Your task to perform on an android device: turn pop-ups off in chrome Image 0: 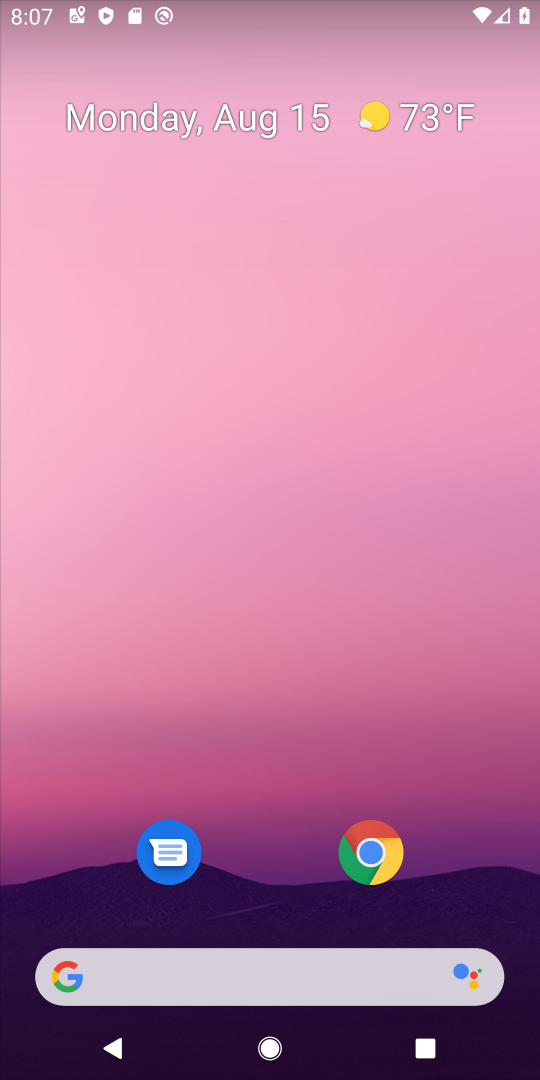
Step 0: click (371, 852)
Your task to perform on an android device: turn pop-ups off in chrome Image 1: 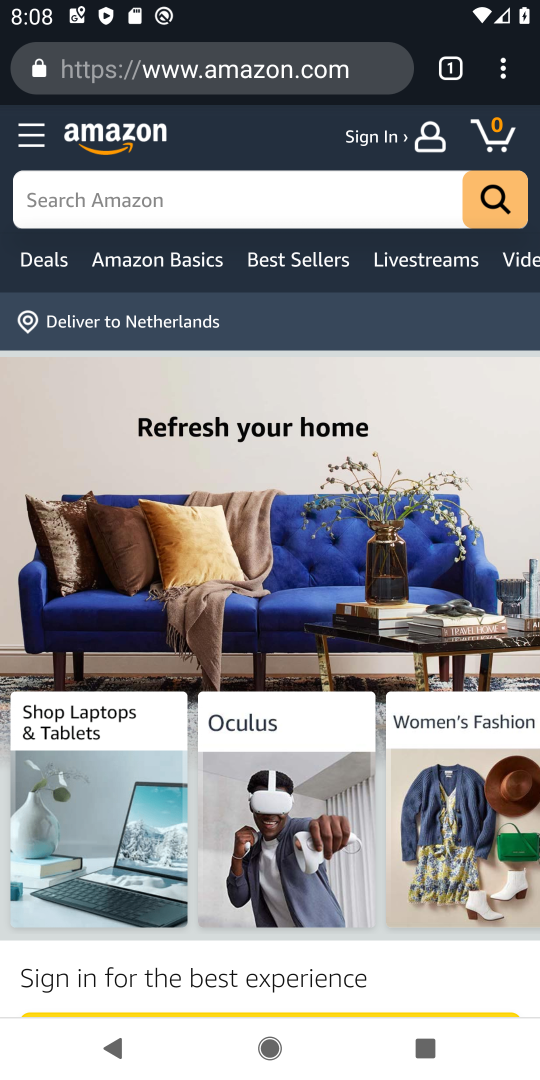
Step 1: click (515, 76)
Your task to perform on an android device: turn pop-ups off in chrome Image 2: 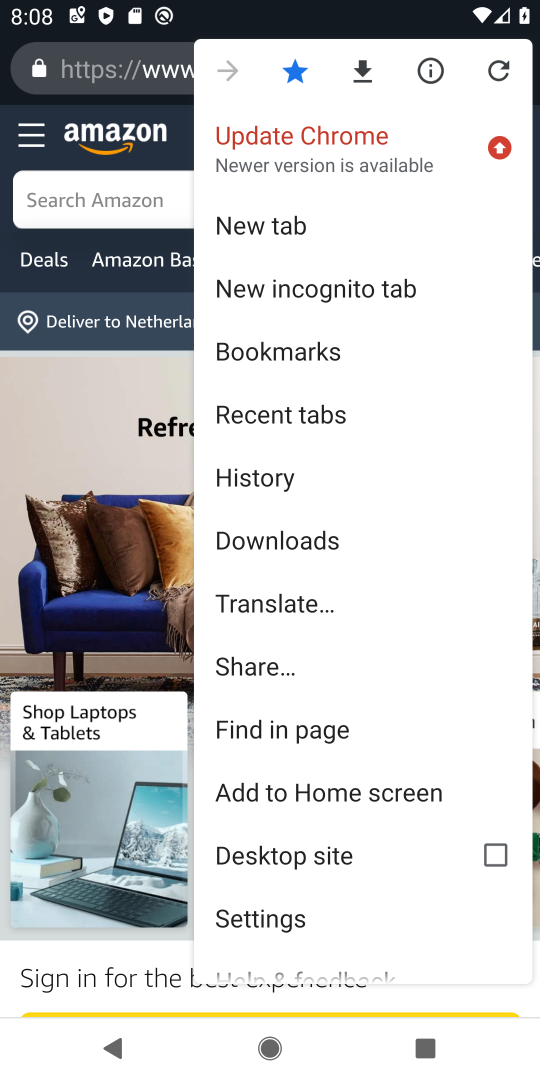
Step 2: click (269, 916)
Your task to perform on an android device: turn pop-ups off in chrome Image 3: 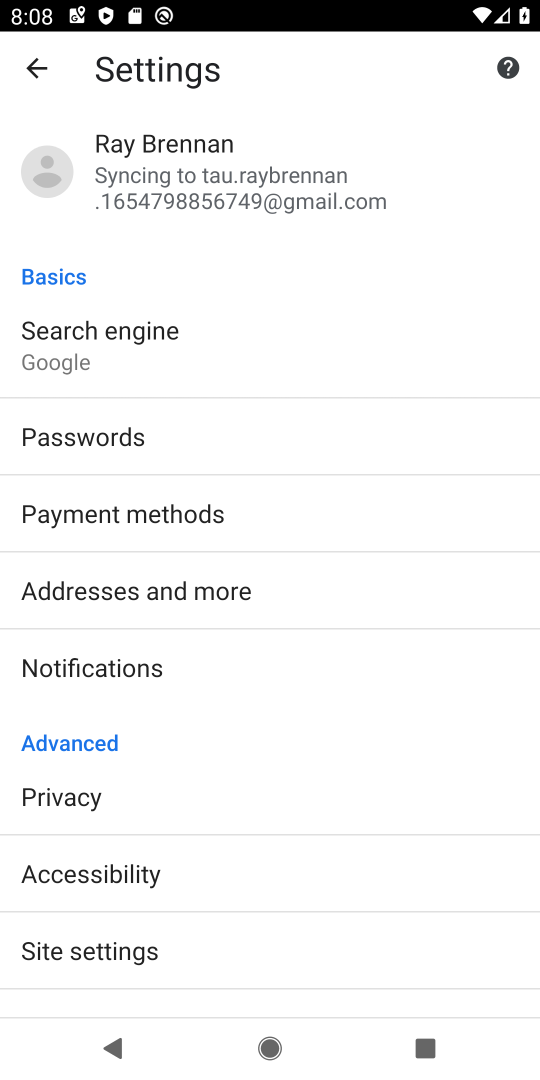
Step 3: drag from (155, 701) to (283, 509)
Your task to perform on an android device: turn pop-ups off in chrome Image 4: 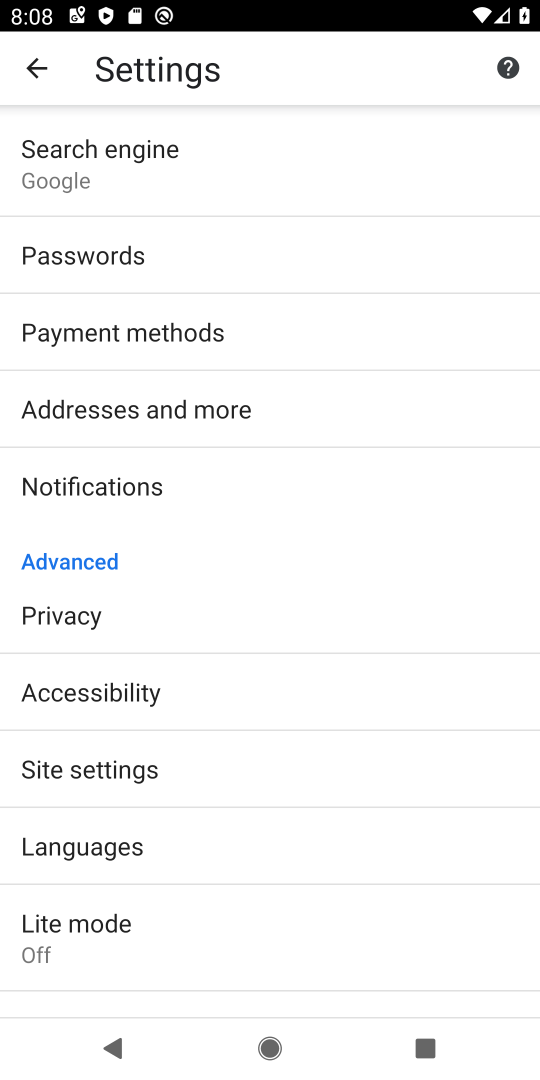
Step 4: drag from (224, 779) to (358, 597)
Your task to perform on an android device: turn pop-ups off in chrome Image 5: 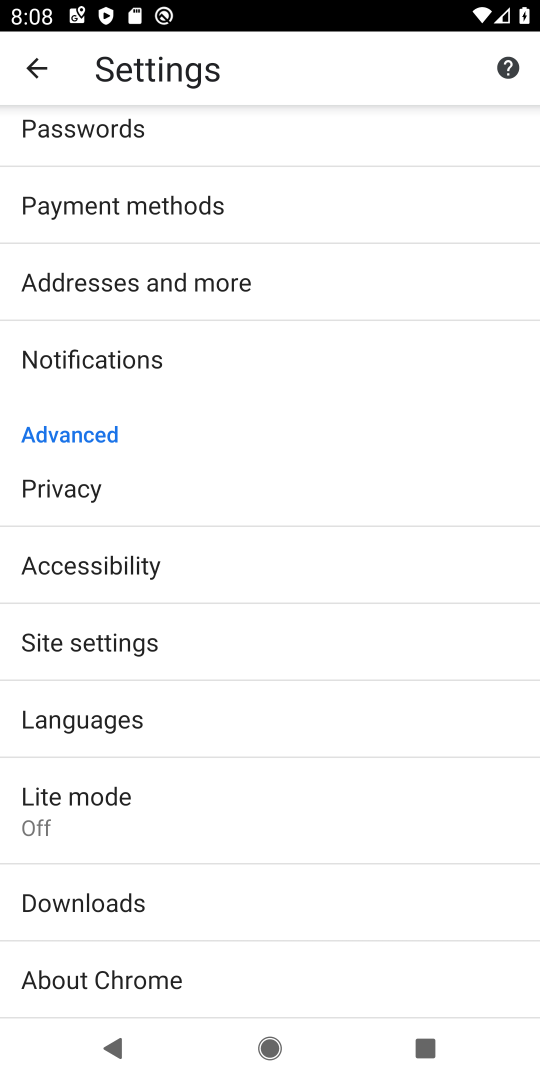
Step 5: drag from (182, 780) to (302, 621)
Your task to perform on an android device: turn pop-ups off in chrome Image 6: 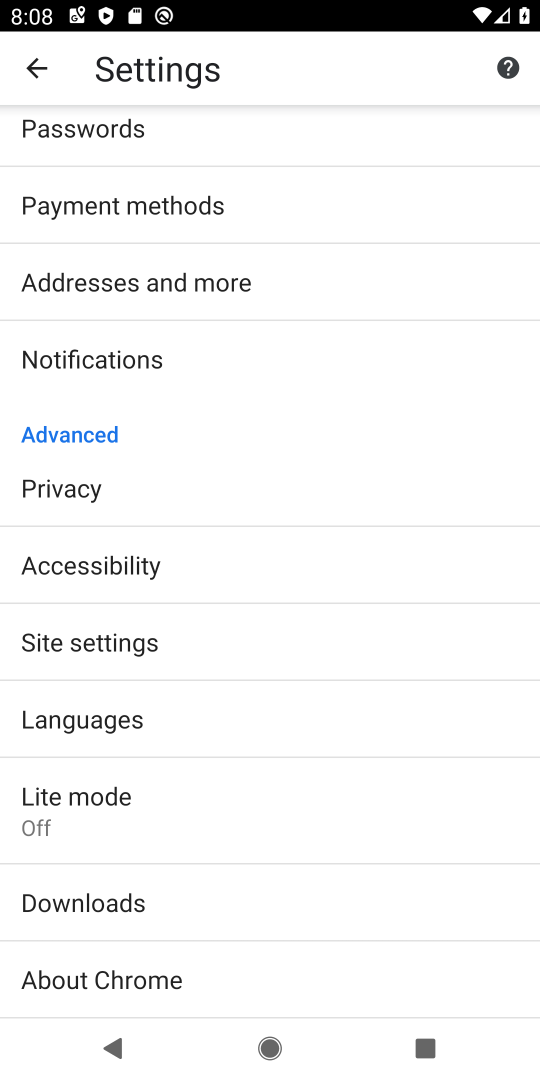
Step 6: click (115, 648)
Your task to perform on an android device: turn pop-ups off in chrome Image 7: 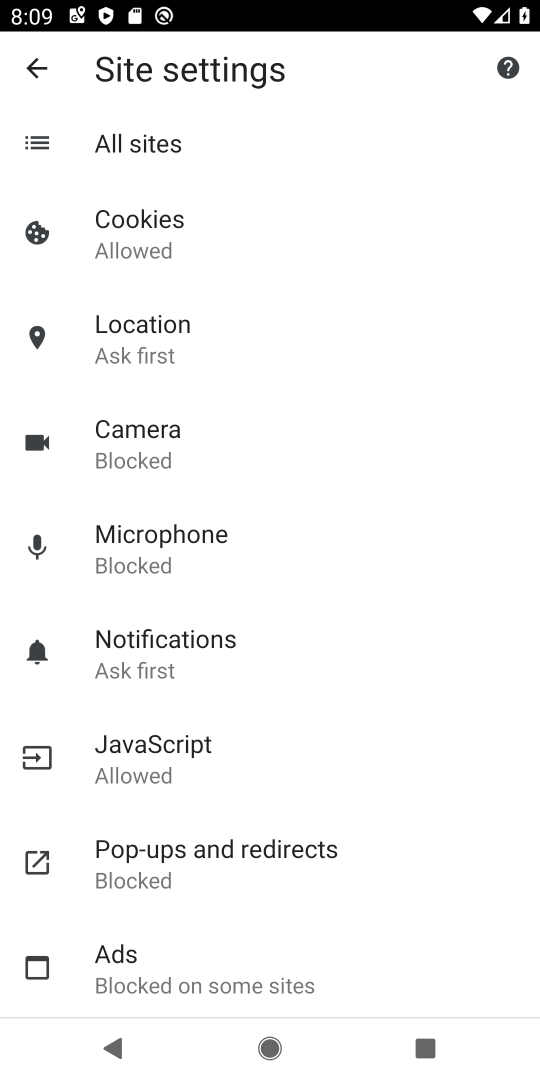
Step 7: drag from (191, 607) to (280, 450)
Your task to perform on an android device: turn pop-ups off in chrome Image 8: 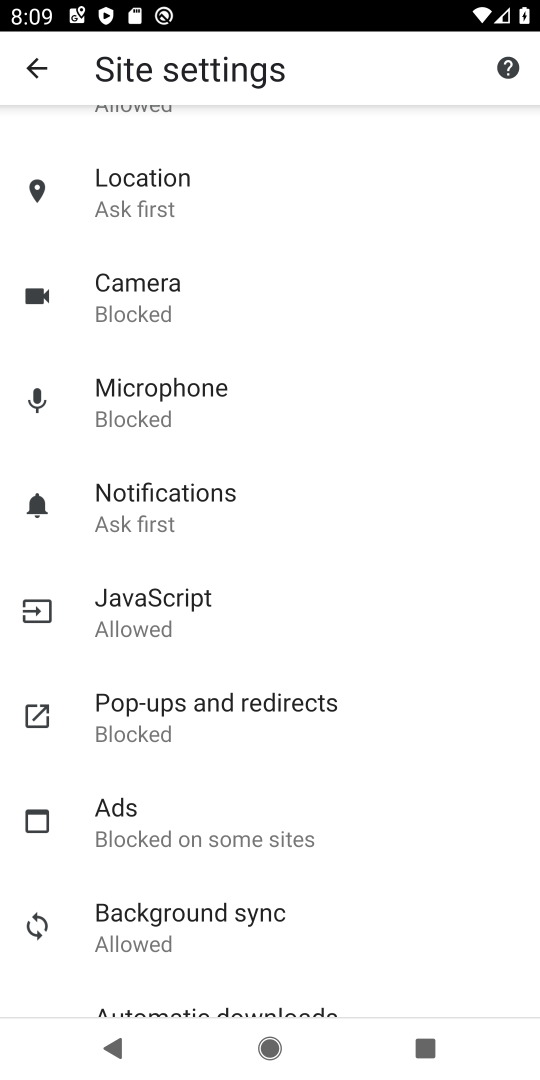
Step 8: click (138, 707)
Your task to perform on an android device: turn pop-ups off in chrome Image 9: 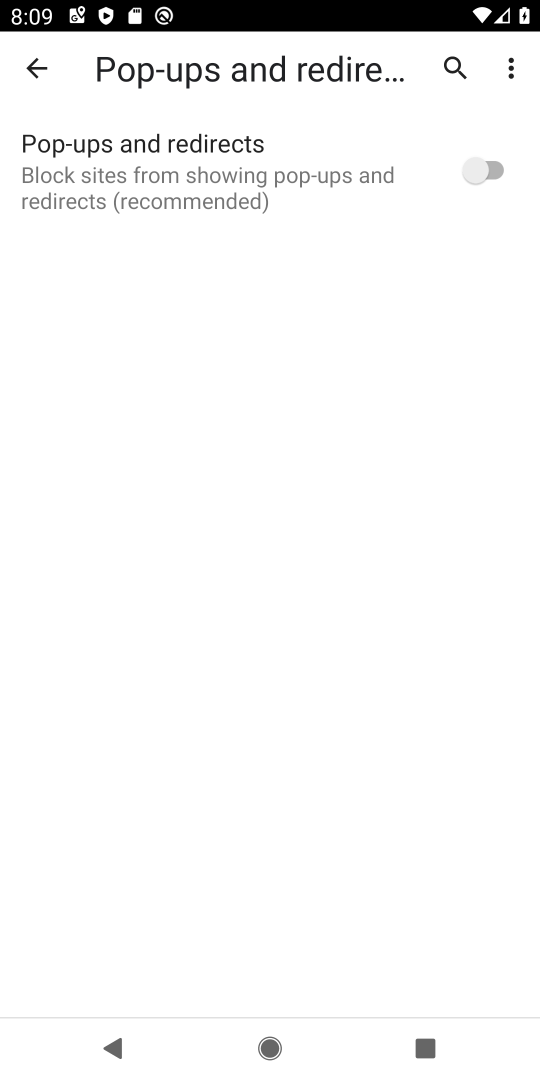
Step 9: task complete